Your task to perform on an android device: What are the best selling refrigerators at Lowes? Image 0: 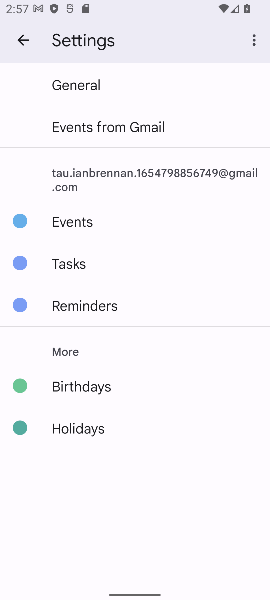
Step 0: press home button
Your task to perform on an android device: What are the best selling refrigerators at Lowes? Image 1: 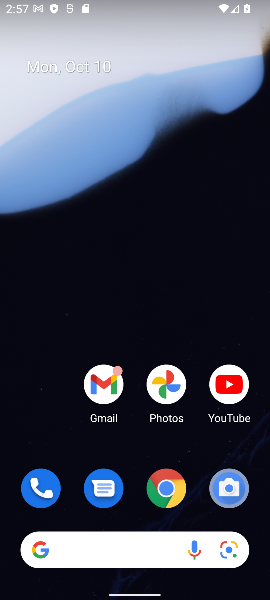
Step 1: click (131, 544)
Your task to perform on an android device: What are the best selling refrigerators at Lowes? Image 2: 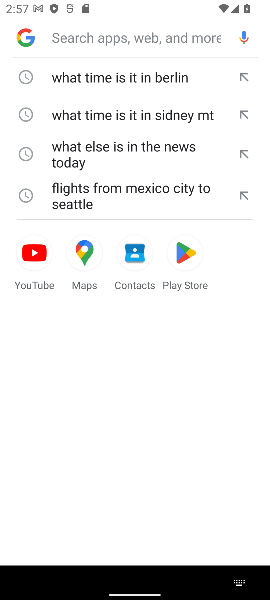
Step 2: click (133, 42)
Your task to perform on an android device: What are the best selling refrigerators at Lowes? Image 3: 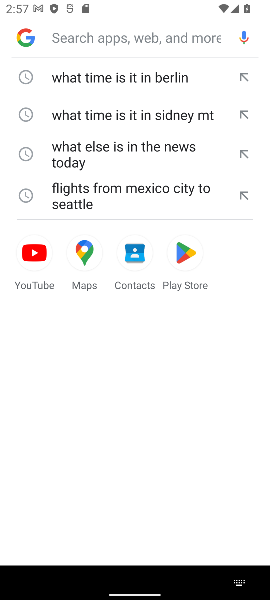
Step 3: type "What are the best selling refrigerators at Lowes"
Your task to perform on an android device: What are the best selling refrigerators at Lowes? Image 4: 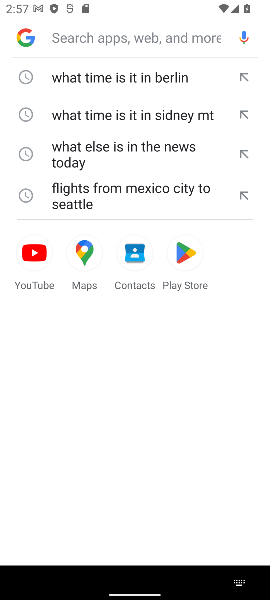
Step 4: click (67, 519)
Your task to perform on an android device: What are the best selling refrigerators at Lowes? Image 5: 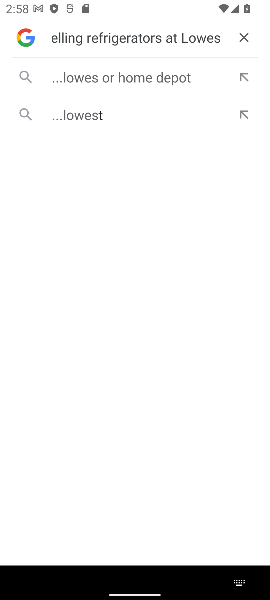
Step 5: click (109, 75)
Your task to perform on an android device: What are the best selling refrigerators at Lowes? Image 6: 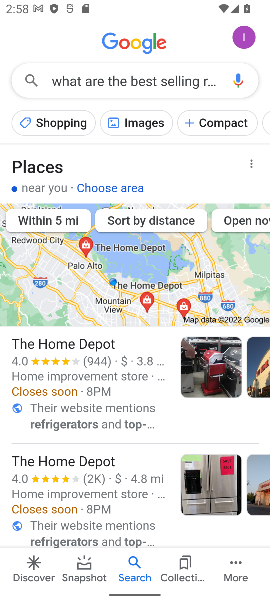
Step 6: task complete